Your task to perform on an android device: What is the recent news? Image 0: 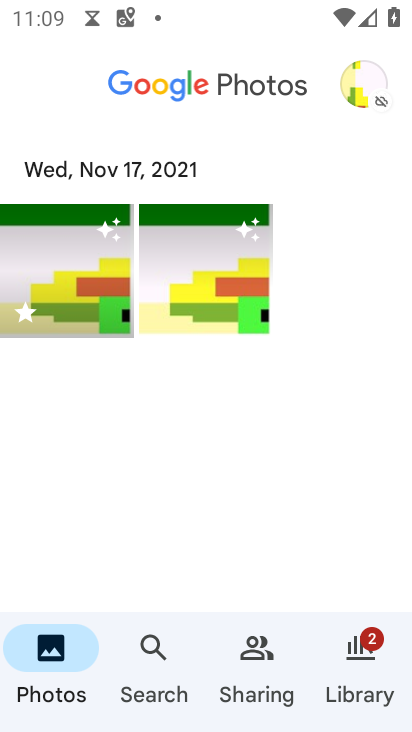
Step 0: press home button
Your task to perform on an android device: What is the recent news? Image 1: 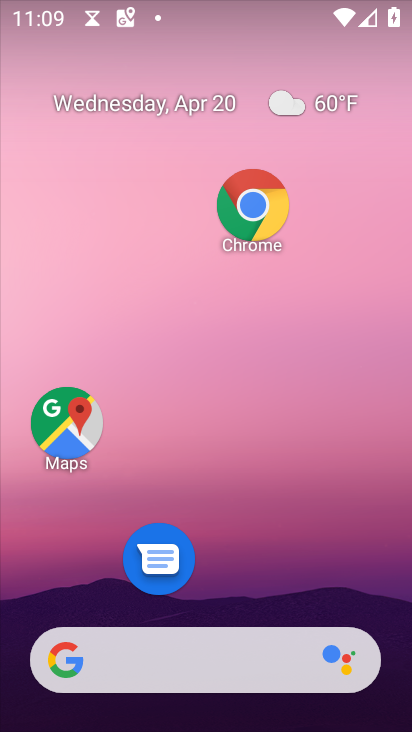
Step 1: drag from (273, 575) to (256, 90)
Your task to perform on an android device: What is the recent news? Image 2: 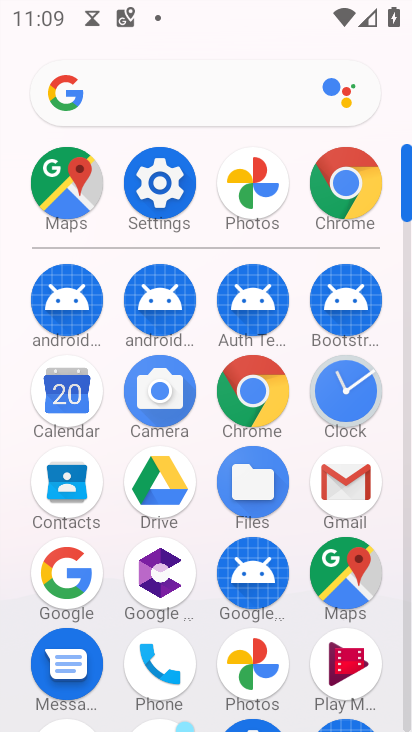
Step 2: click (247, 401)
Your task to perform on an android device: What is the recent news? Image 3: 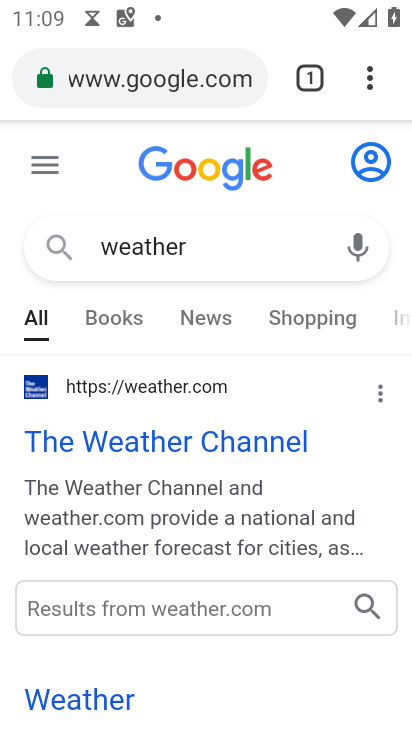
Step 3: click (208, 73)
Your task to perform on an android device: What is the recent news? Image 4: 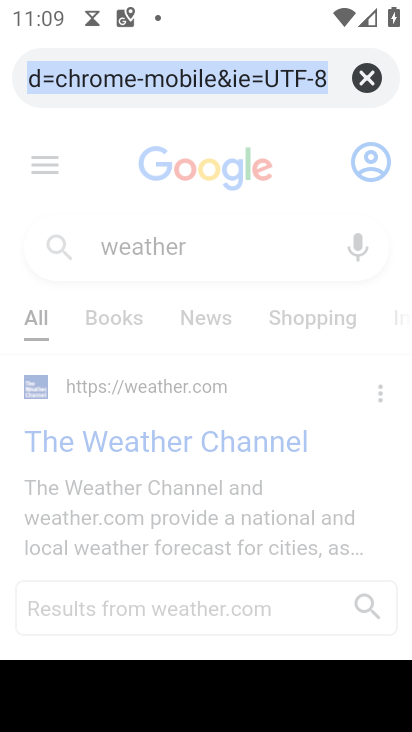
Step 4: click (371, 78)
Your task to perform on an android device: What is the recent news? Image 5: 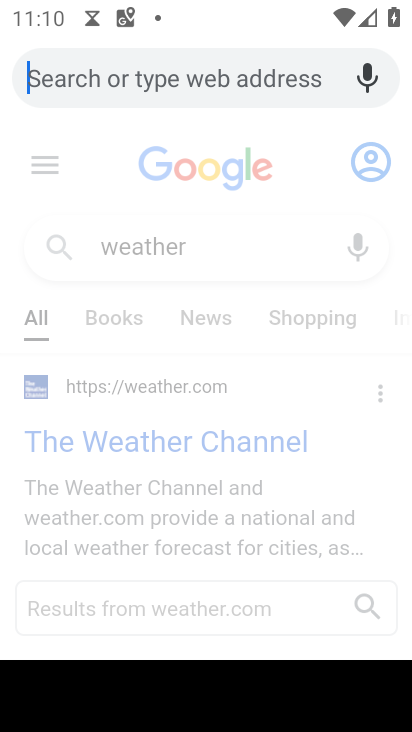
Step 5: type "recent news"
Your task to perform on an android device: What is the recent news? Image 6: 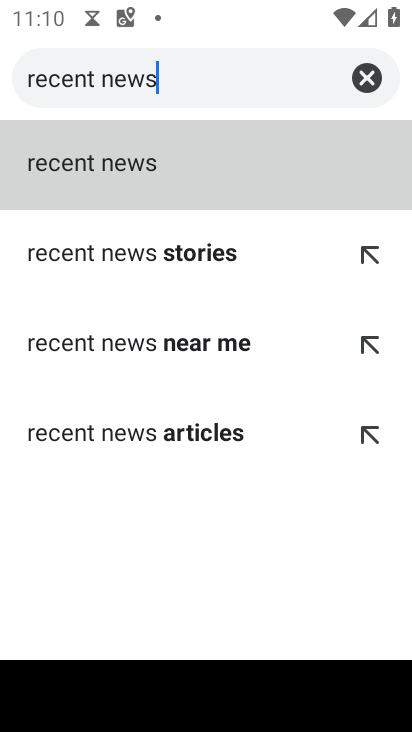
Step 6: click (176, 158)
Your task to perform on an android device: What is the recent news? Image 7: 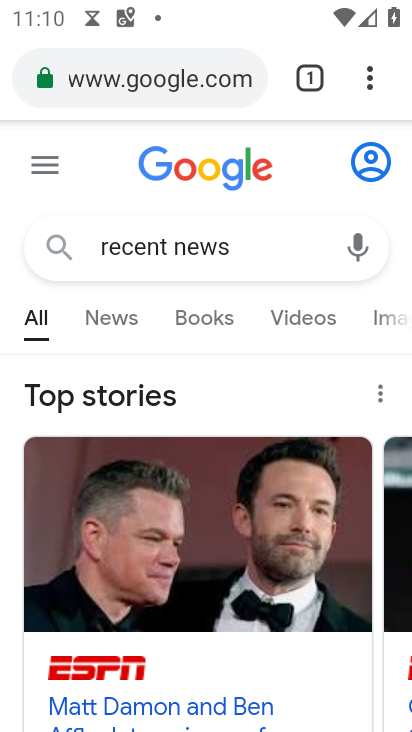
Step 7: task complete